Your task to perform on an android device: Open Maps and search for coffee Image 0: 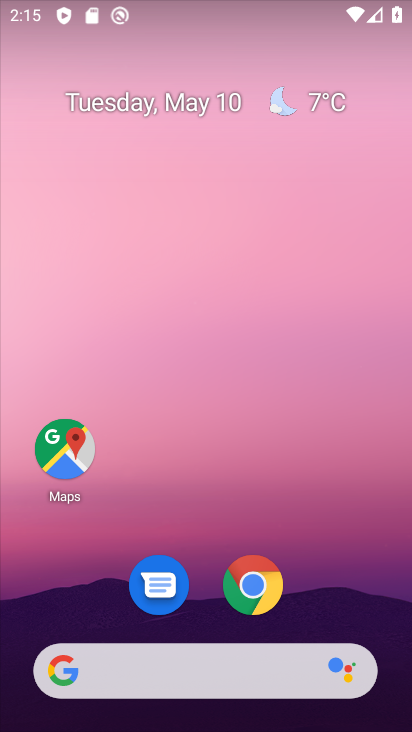
Step 0: click (66, 449)
Your task to perform on an android device: Open Maps and search for coffee Image 1: 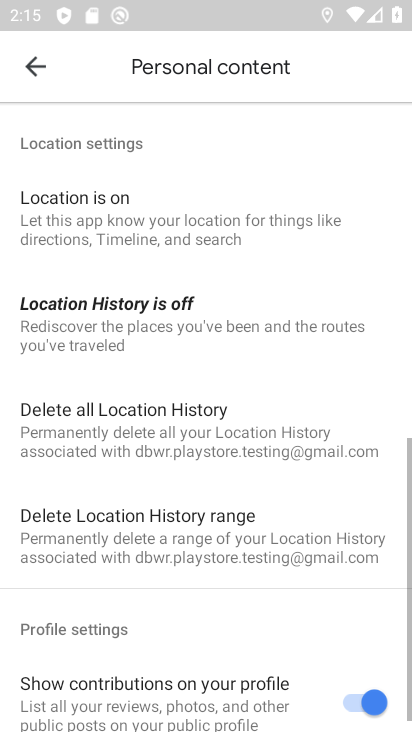
Step 1: click (66, 449)
Your task to perform on an android device: Open Maps and search for coffee Image 2: 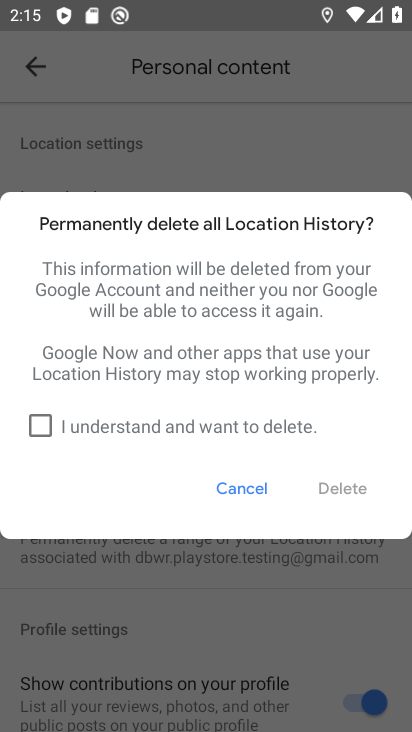
Step 2: click (238, 479)
Your task to perform on an android device: Open Maps and search for coffee Image 3: 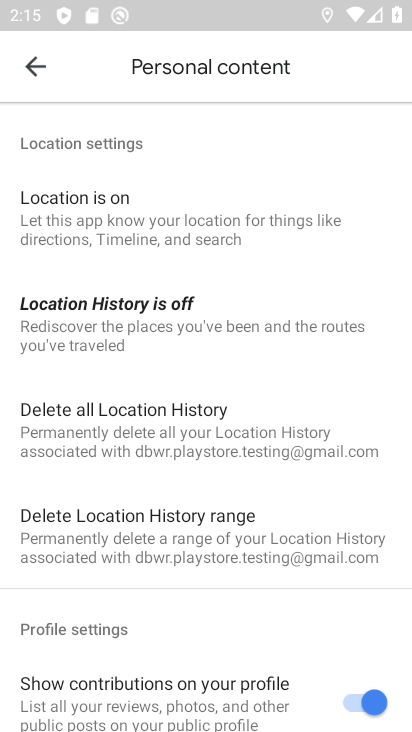
Step 3: click (33, 62)
Your task to perform on an android device: Open Maps and search for coffee Image 4: 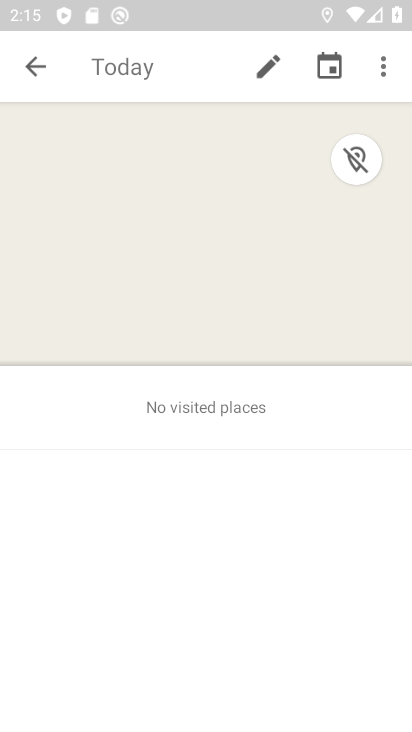
Step 4: click (33, 62)
Your task to perform on an android device: Open Maps and search for coffee Image 5: 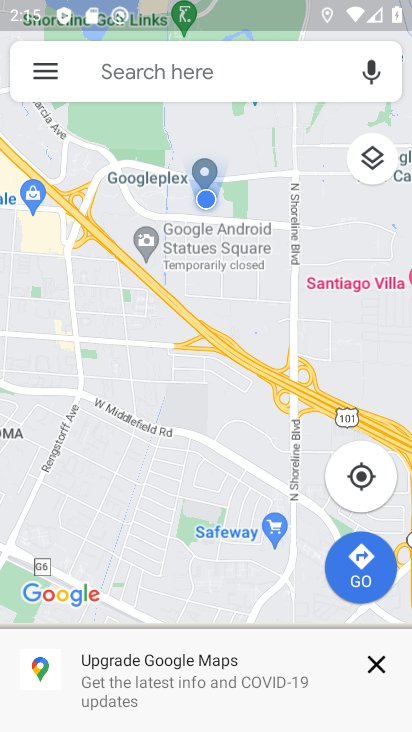
Step 5: click (113, 64)
Your task to perform on an android device: Open Maps and search for coffee Image 6: 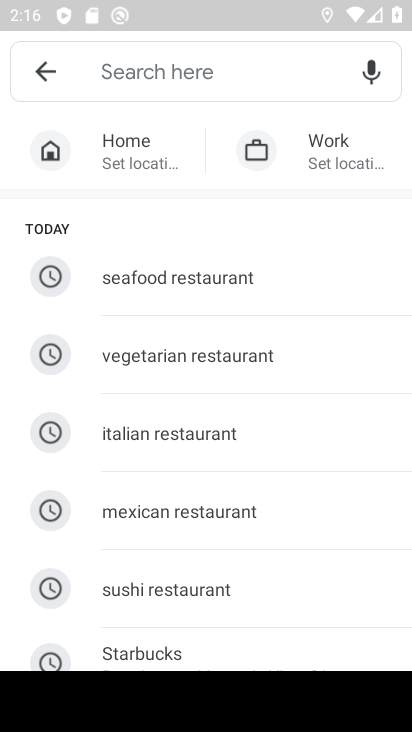
Step 6: type "coffee"
Your task to perform on an android device: Open Maps and search for coffee Image 7: 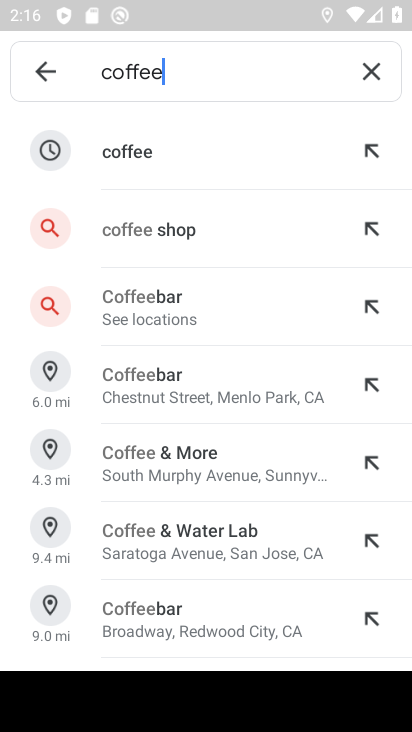
Step 7: click (179, 229)
Your task to perform on an android device: Open Maps and search for coffee Image 8: 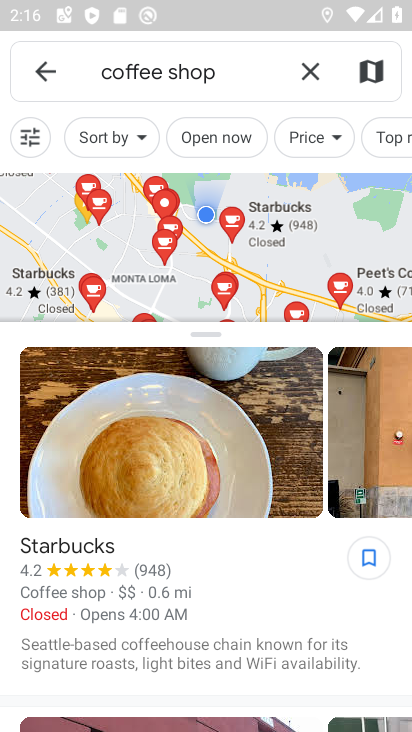
Step 8: task complete